Your task to perform on an android device: turn on airplane mode Image 0: 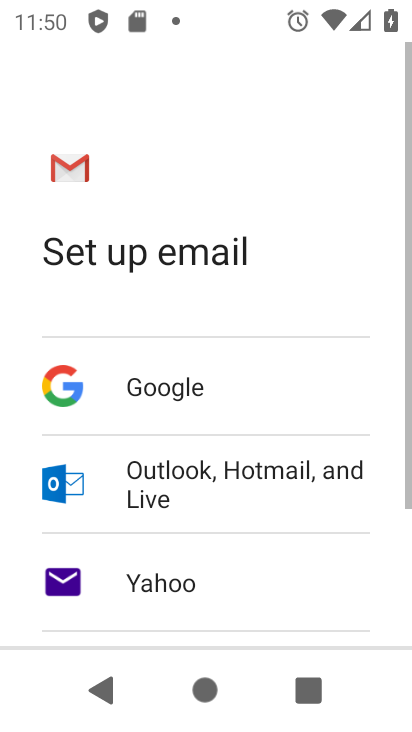
Step 0: press home button
Your task to perform on an android device: turn on airplane mode Image 1: 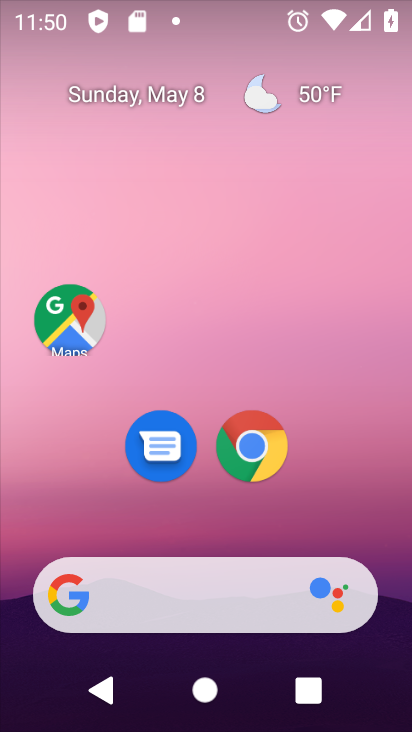
Step 1: drag from (313, 543) to (365, 35)
Your task to perform on an android device: turn on airplane mode Image 2: 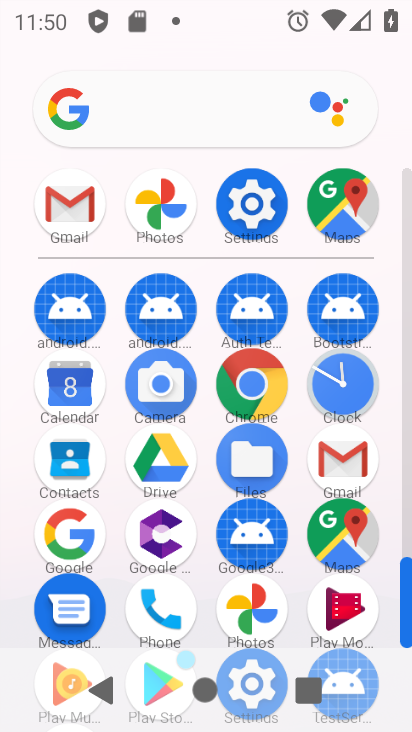
Step 2: click (259, 179)
Your task to perform on an android device: turn on airplane mode Image 3: 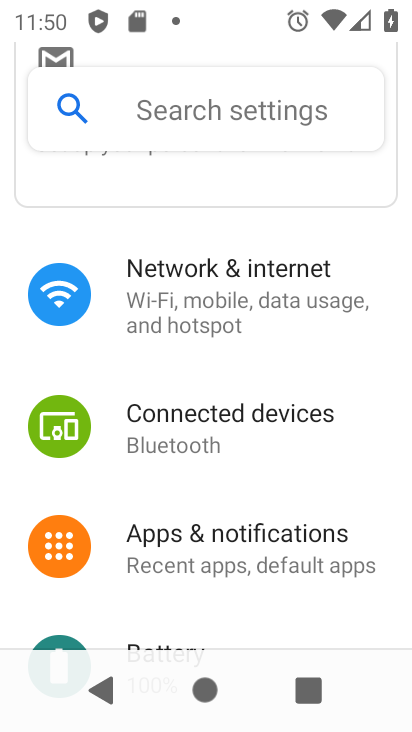
Step 3: click (206, 311)
Your task to perform on an android device: turn on airplane mode Image 4: 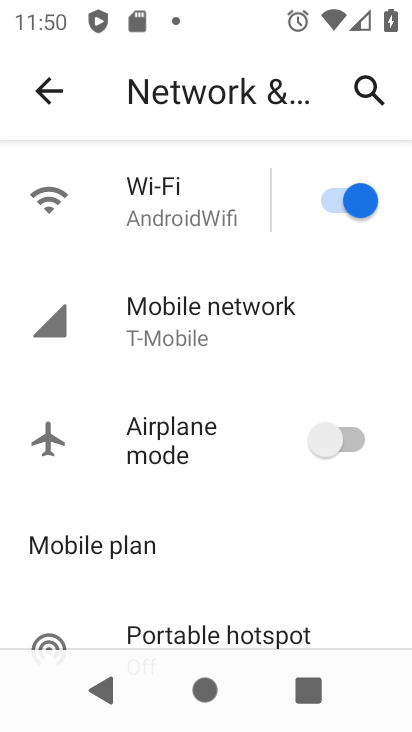
Step 4: click (322, 446)
Your task to perform on an android device: turn on airplane mode Image 5: 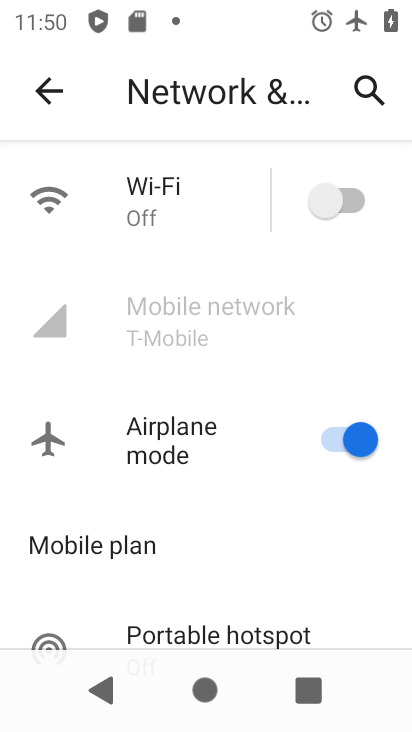
Step 5: task complete